Your task to perform on an android device: What's the weather going to be this weekend? Image 0: 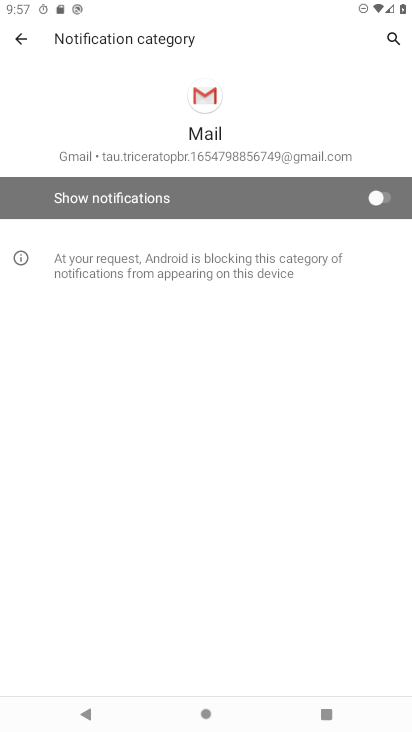
Step 0: drag from (219, 304) to (273, 93)
Your task to perform on an android device: What's the weather going to be this weekend? Image 1: 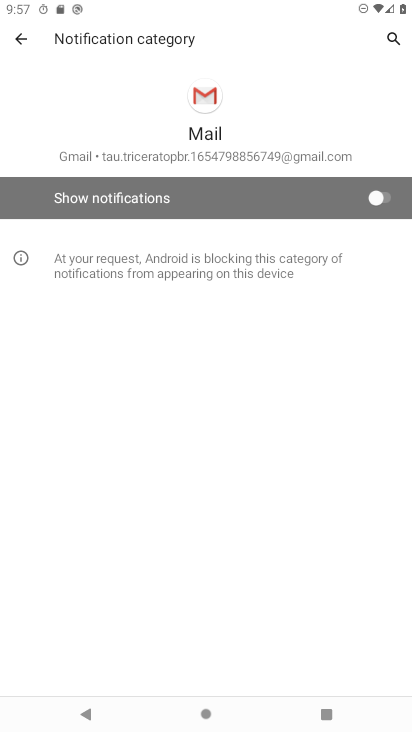
Step 1: drag from (201, 512) to (257, 220)
Your task to perform on an android device: What's the weather going to be this weekend? Image 2: 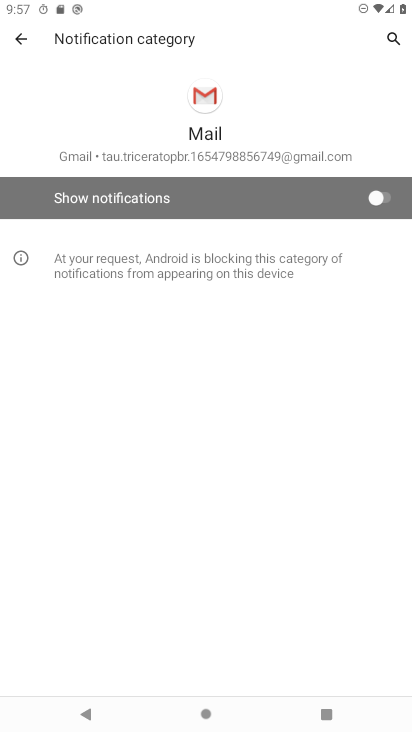
Step 2: drag from (215, 512) to (219, 249)
Your task to perform on an android device: What's the weather going to be this weekend? Image 3: 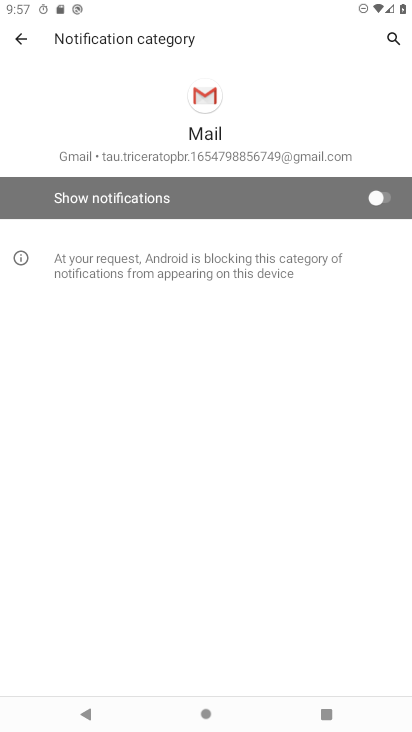
Step 3: press home button
Your task to perform on an android device: What's the weather going to be this weekend? Image 4: 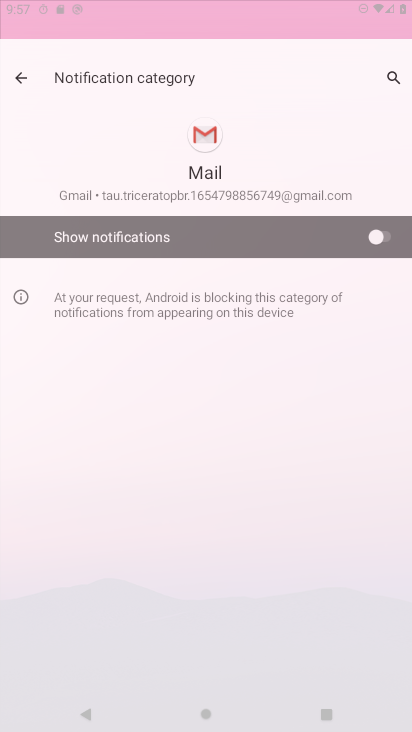
Step 4: drag from (152, 668) to (314, 0)
Your task to perform on an android device: What's the weather going to be this weekend? Image 5: 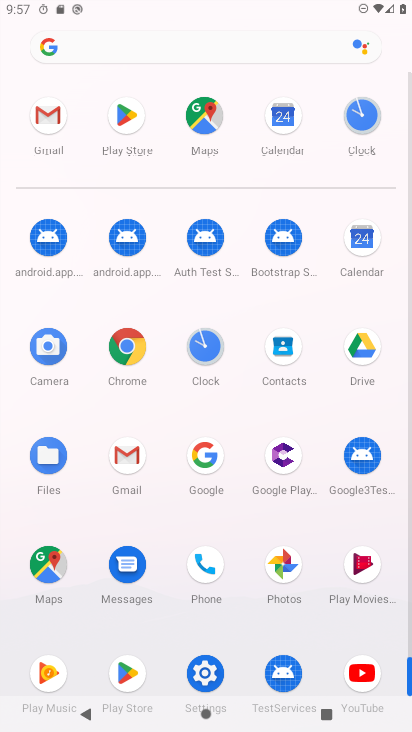
Step 5: click (151, 48)
Your task to perform on an android device: What's the weather going to be this weekend? Image 6: 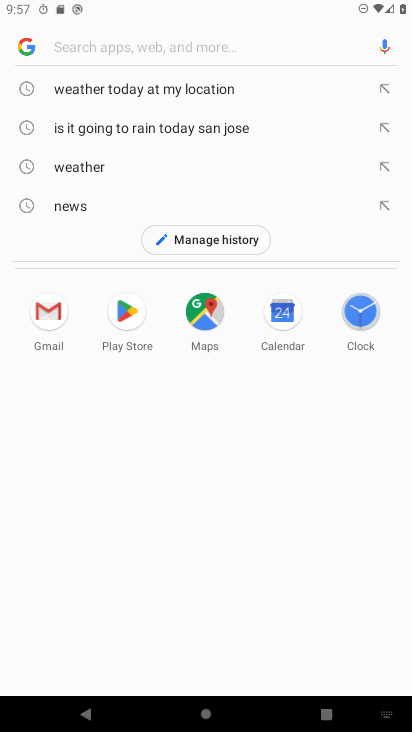
Step 6: type "What's the weather going to be this weekend?"
Your task to perform on an android device: What's the weather going to be this weekend? Image 7: 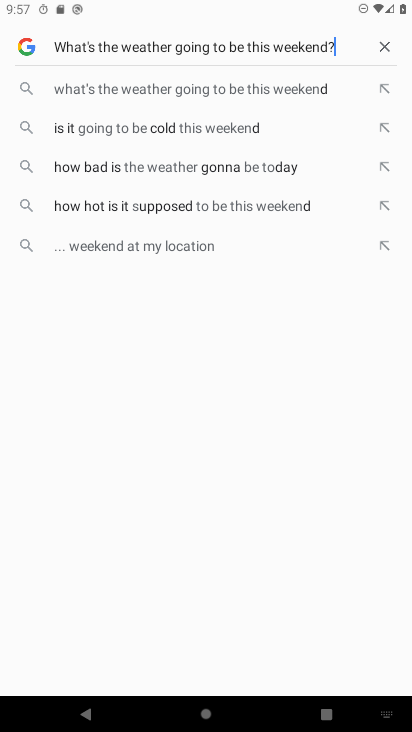
Step 7: type ""
Your task to perform on an android device: What's the weather going to be this weekend? Image 8: 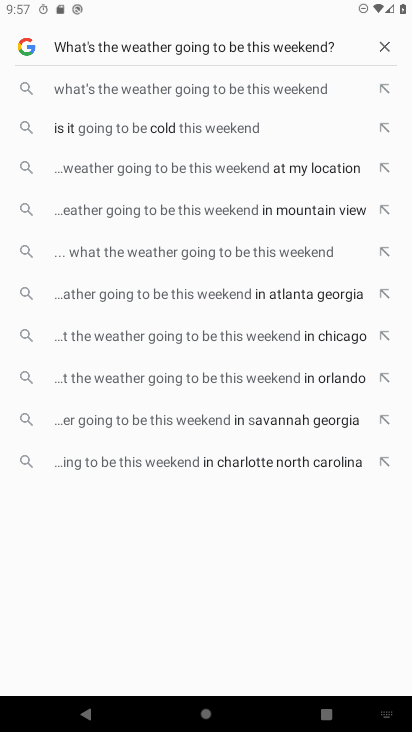
Step 8: click (86, 41)
Your task to perform on an android device: What's the weather going to be this weekend? Image 9: 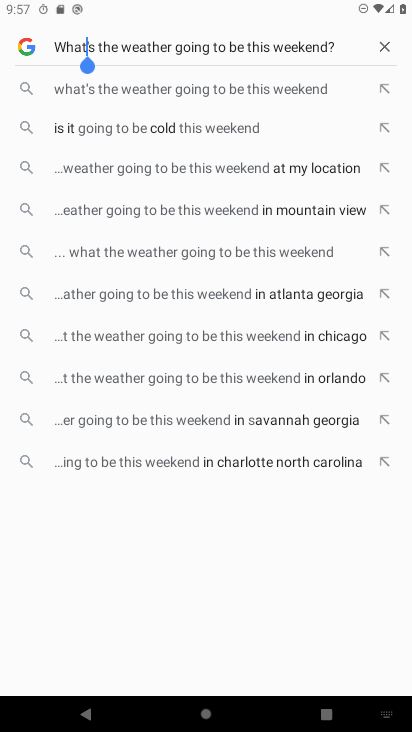
Step 9: click (135, 80)
Your task to perform on an android device: What's the weather going to be this weekend? Image 10: 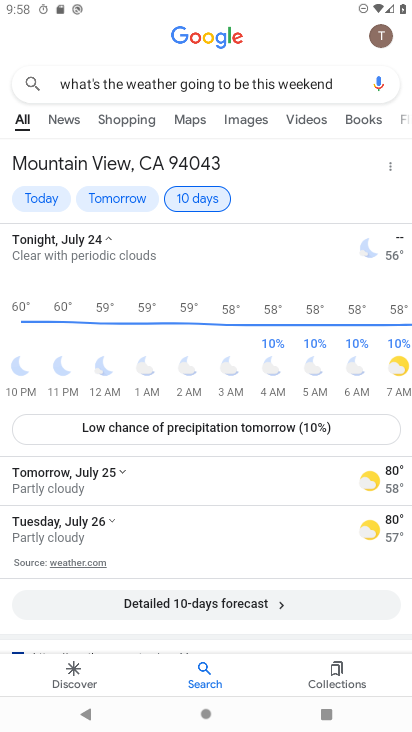
Step 10: task complete